Your task to perform on an android device: allow notifications from all sites in the chrome app Image 0: 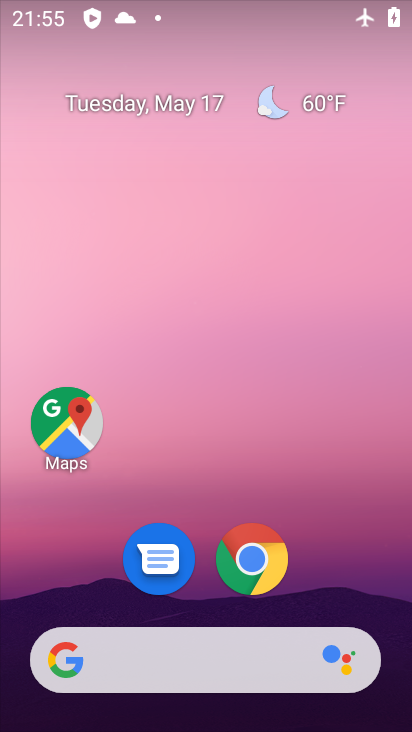
Step 0: click (251, 558)
Your task to perform on an android device: allow notifications from all sites in the chrome app Image 1: 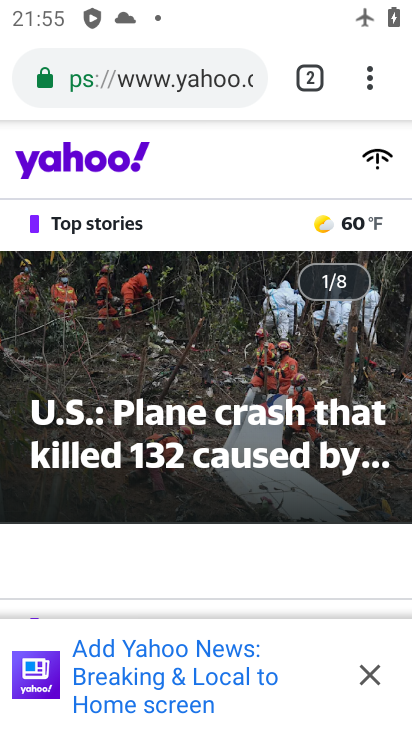
Step 1: drag from (378, 68) to (150, 628)
Your task to perform on an android device: allow notifications from all sites in the chrome app Image 2: 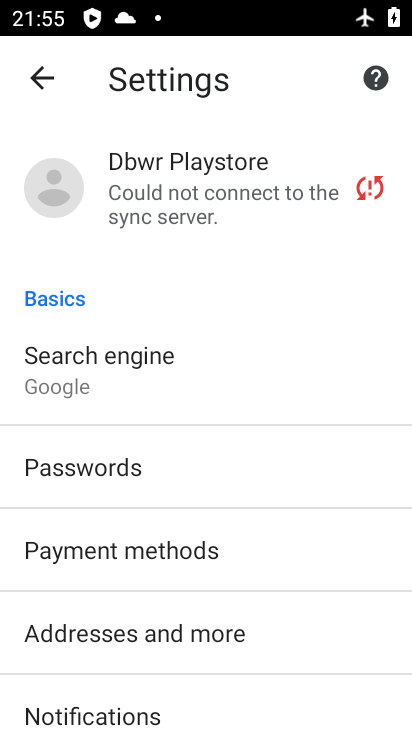
Step 2: drag from (244, 577) to (296, 37)
Your task to perform on an android device: allow notifications from all sites in the chrome app Image 3: 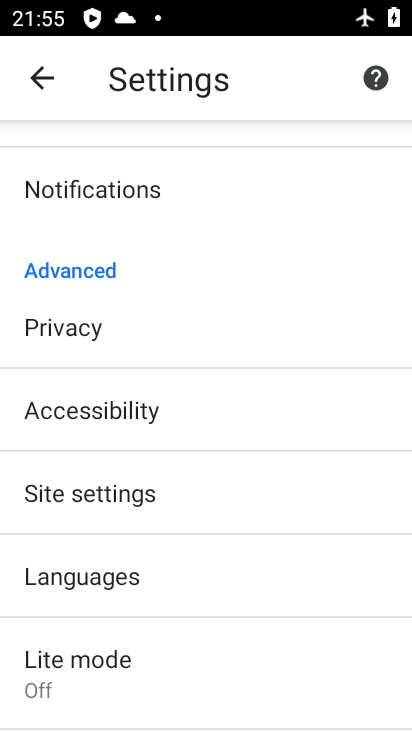
Step 3: click (129, 194)
Your task to perform on an android device: allow notifications from all sites in the chrome app Image 4: 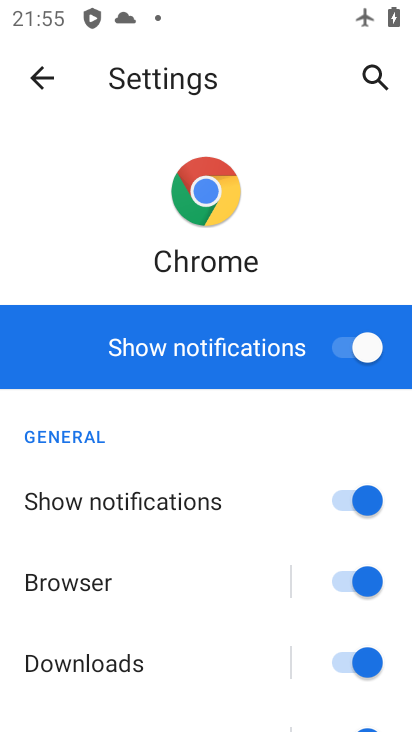
Step 4: task complete